Your task to perform on an android device: check out phone information Image 0: 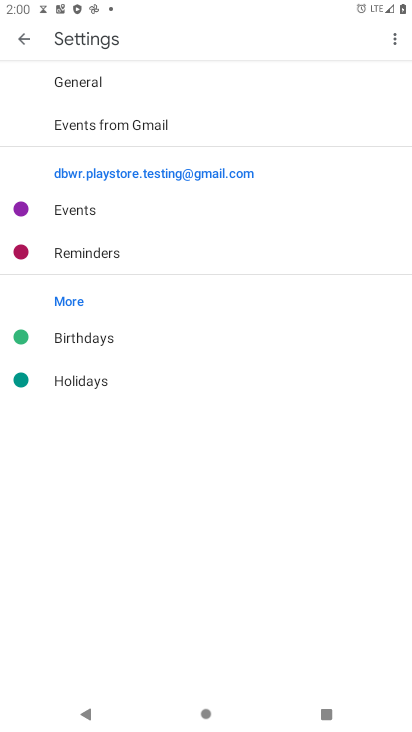
Step 0: press home button
Your task to perform on an android device: check out phone information Image 1: 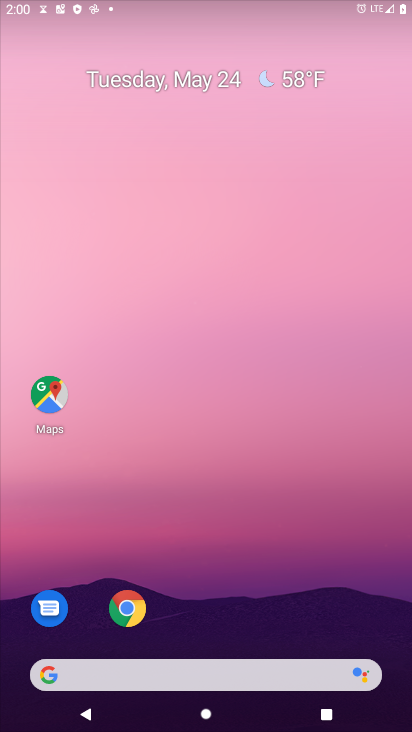
Step 1: drag from (218, 696) to (72, 47)
Your task to perform on an android device: check out phone information Image 2: 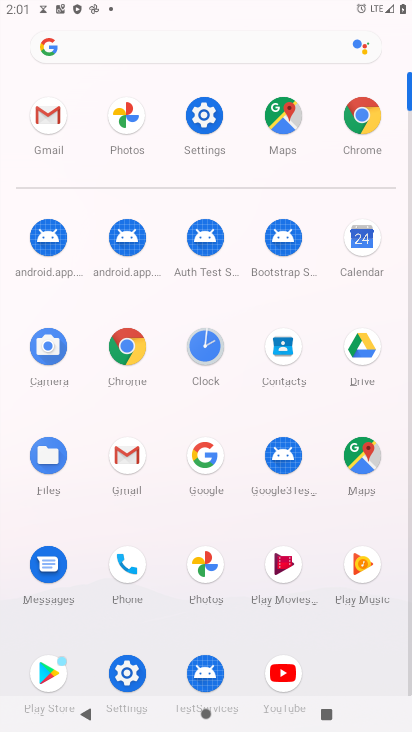
Step 2: click (203, 128)
Your task to perform on an android device: check out phone information Image 3: 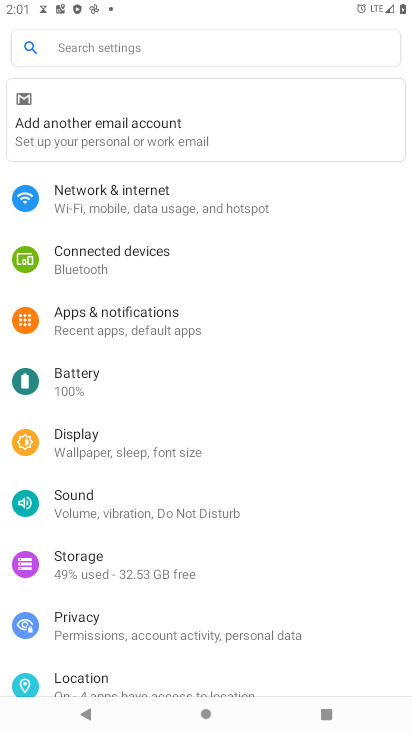
Step 3: click (109, 51)
Your task to perform on an android device: check out phone information Image 4: 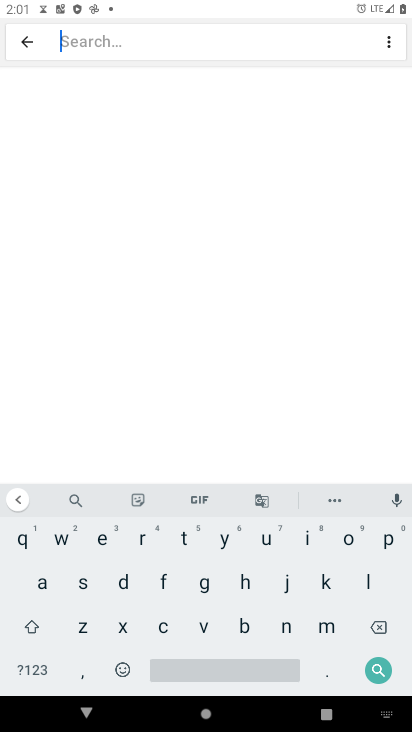
Step 4: click (38, 580)
Your task to perform on an android device: check out phone information Image 5: 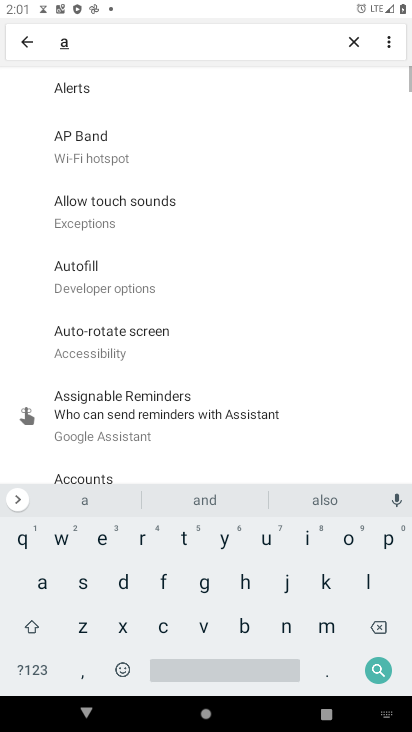
Step 5: click (245, 629)
Your task to perform on an android device: check out phone information Image 6: 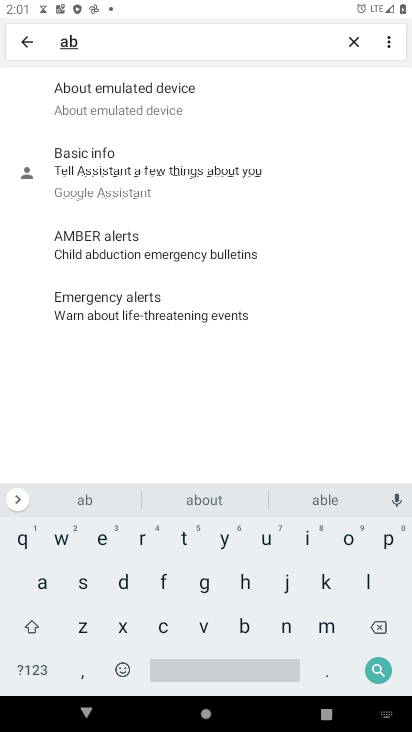
Step 6: click (159, 103)
Your task to perform on an android device: check out phone information Image 7: 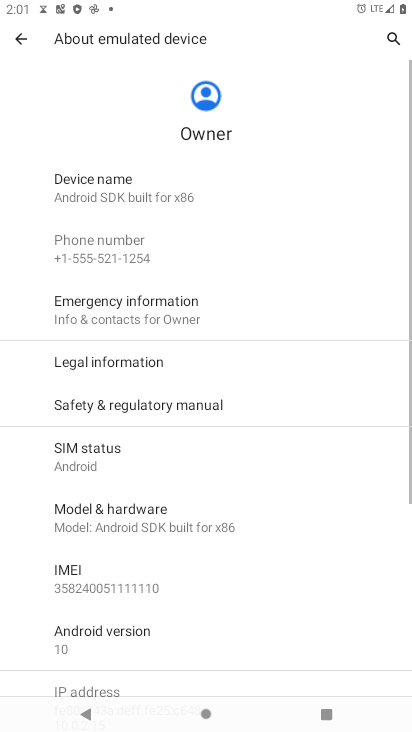
Step 7: task complete